Your task to perform on an android device: Open Youtube and go to "Your channel" Image 0: 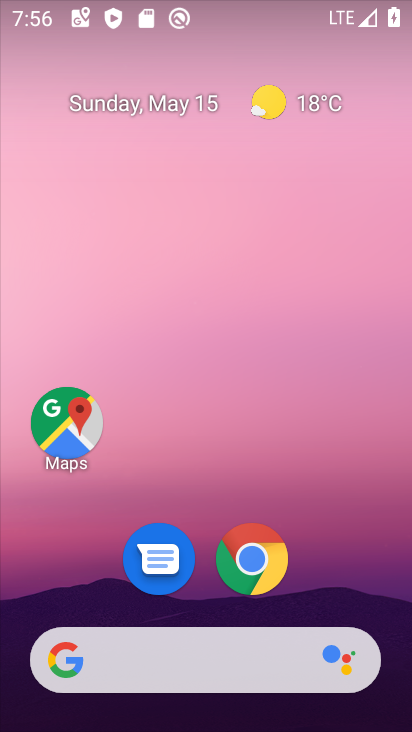
Step 0: drag from (356, 570) to (212, 146)
Your task to perform on an android device: Open Youtube and go to "Your channel" Image 1: 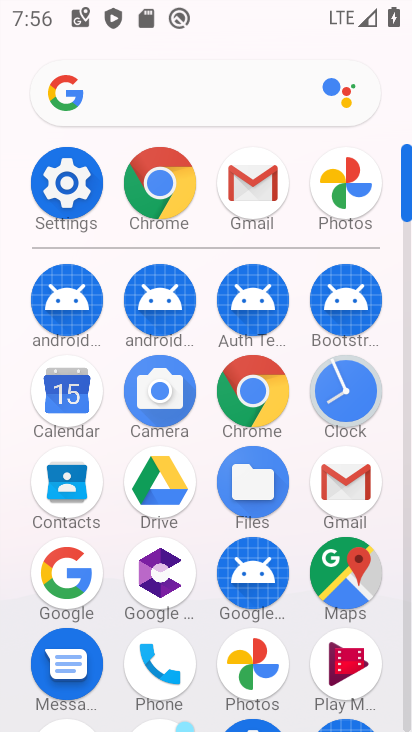
Step 1: click (408, 688)
Your task to perform on an android device: Open Youtube and go to "Your channel" Image 2: 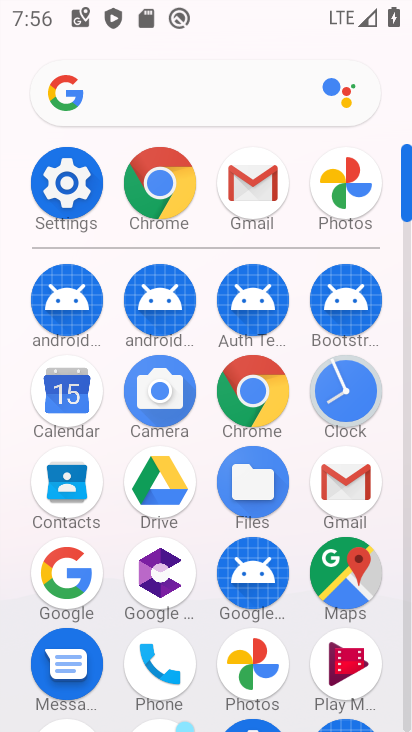
Step 2: click (408, 688)
Your task to perform on an android device: Open Youtube and go to "Your channel" Image 3: 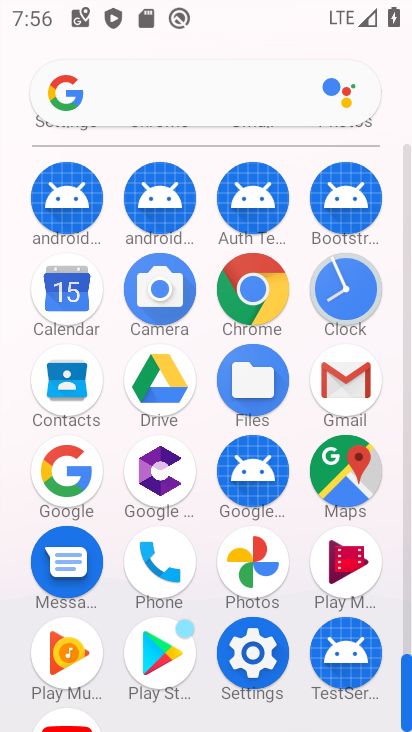
Step 3: click (408, 688)
Your task to perform on an android device: Open Youtube and go to "Your channel" Image 4: 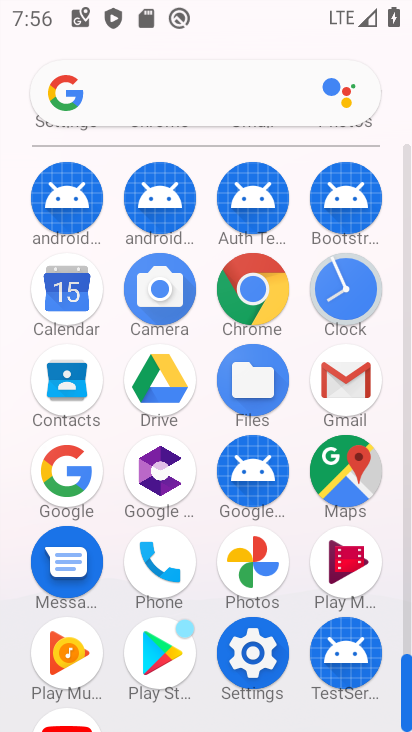
Step 4: click (408, 688)
Your task to perform on an android device: Open Youtube and go to "Your channel" Image 5: 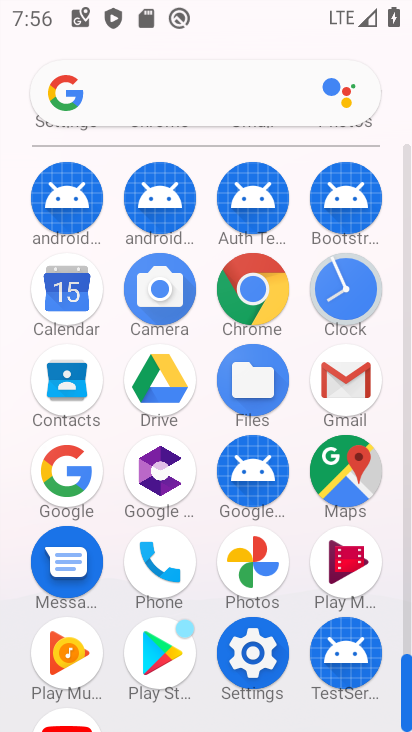
Step 5: drag from (192, 696) to (99, 263)
Your task to perform on an android device: Open Youtube and go to "Your channel" Image 6: 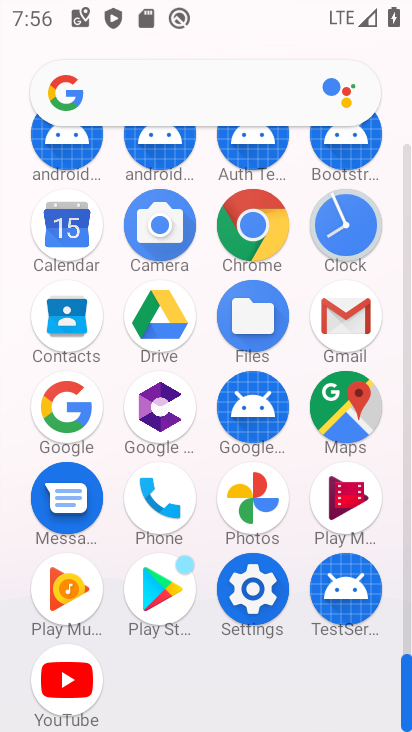
Step 6: click (74, 685)
Your task to perform on an android device: Open Youtube and go to "Your channel" Image 7: 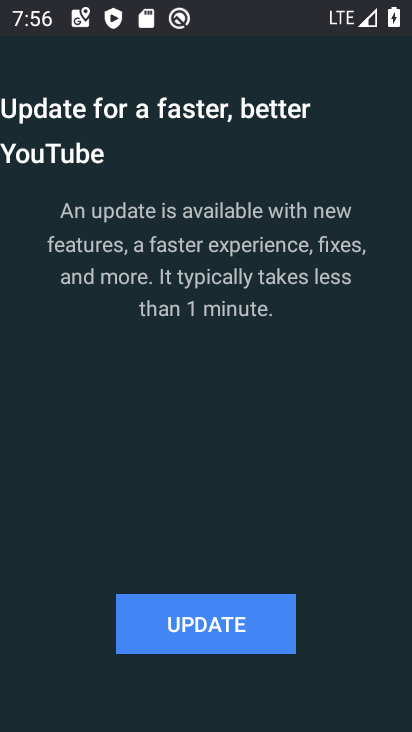
Step 7: click (191, 627)
Your task to perform on an android device: Open Youtube and go to "Your channel" Image 8: 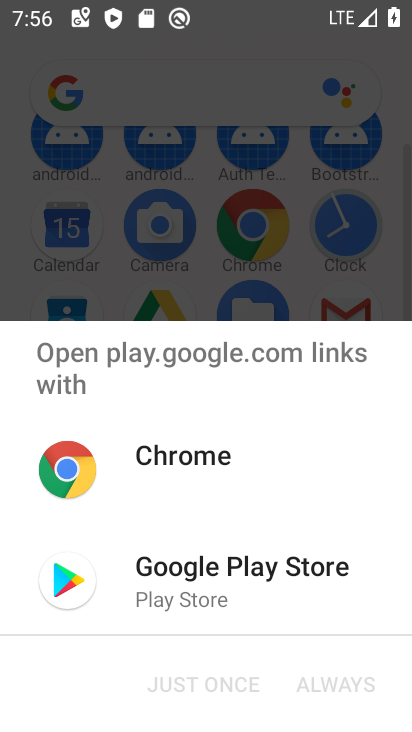
Step 8: click (192, 583)
Your task to perform on an android device: Open Youtube and go to "Your channel" Image 9: 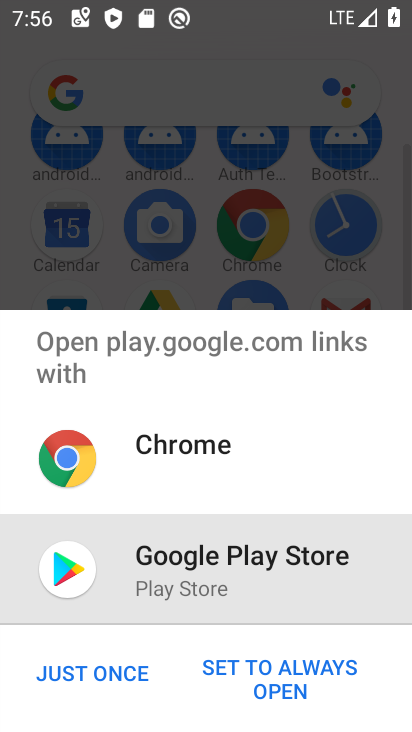
Step 9: click (103, 677)
Your task to perform on an android device: Open Youtube and go to "Your channel" Image 10: 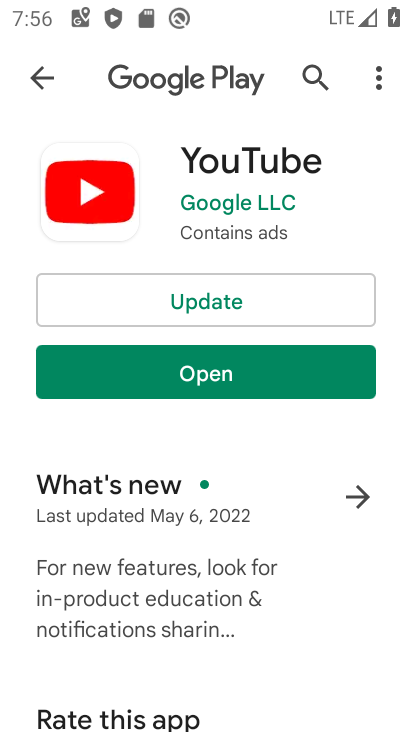
Step 10: click (191, 295)
Your task to perform on an android device: Open Youtube and go to "Your channel" Image 11: 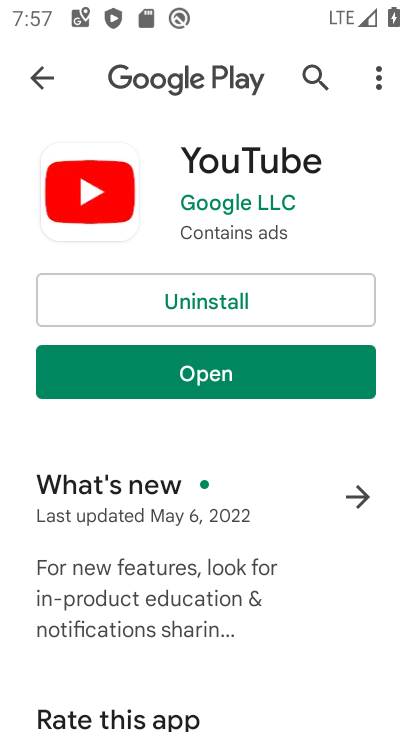
Step 11: click (201, 381)
Your task to perform on an android device: Open Youtube and go to "Your channel" Image 12: 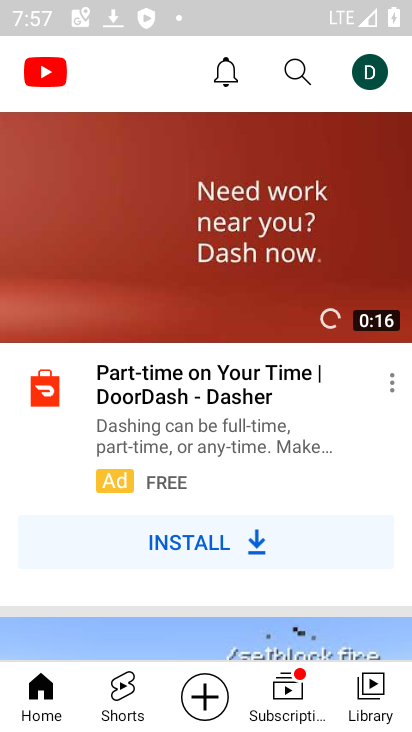
Step 12: task complete